Your task to perform on an android device: make emails show in primary in the gmail app Image 0: 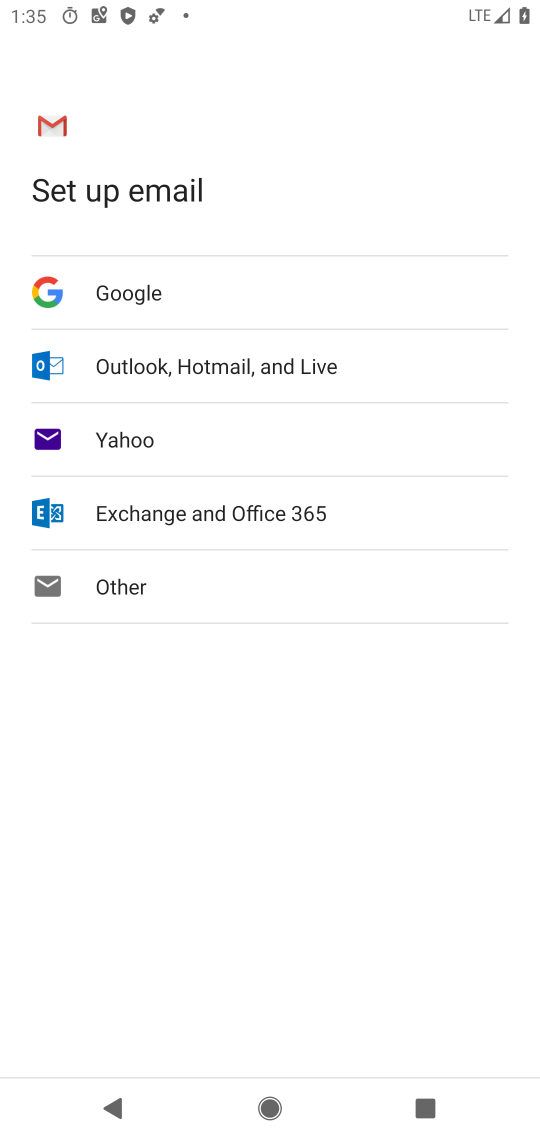
Step 0: press home button
Your task to perform on an android device: make emails show in primary in the gmail app Image 1: 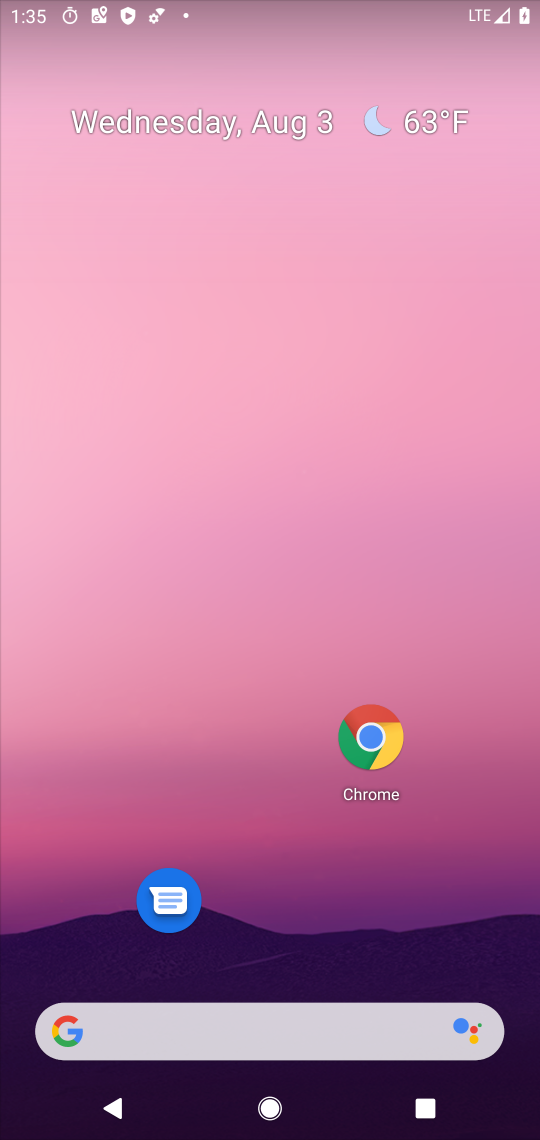
Step 1: drag from (336, 1004) to (290, 173)
Your task to perform on an android device: make emails show in primary in the gmail app Image 2: 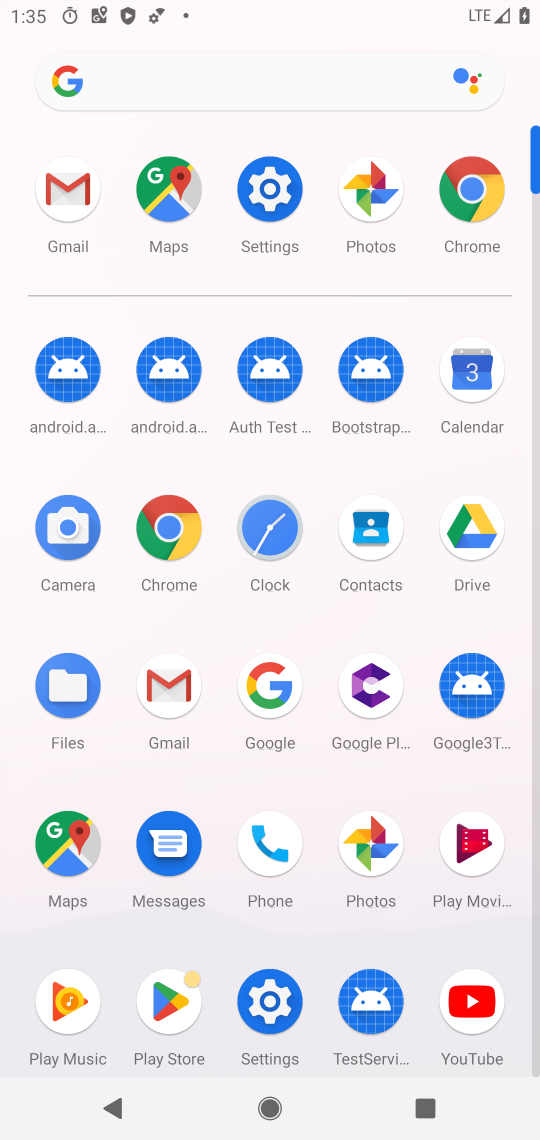
Step 2: click (67, 182)
Your task to perform on an android device: make emails show in primary in the gmail app Image 3: 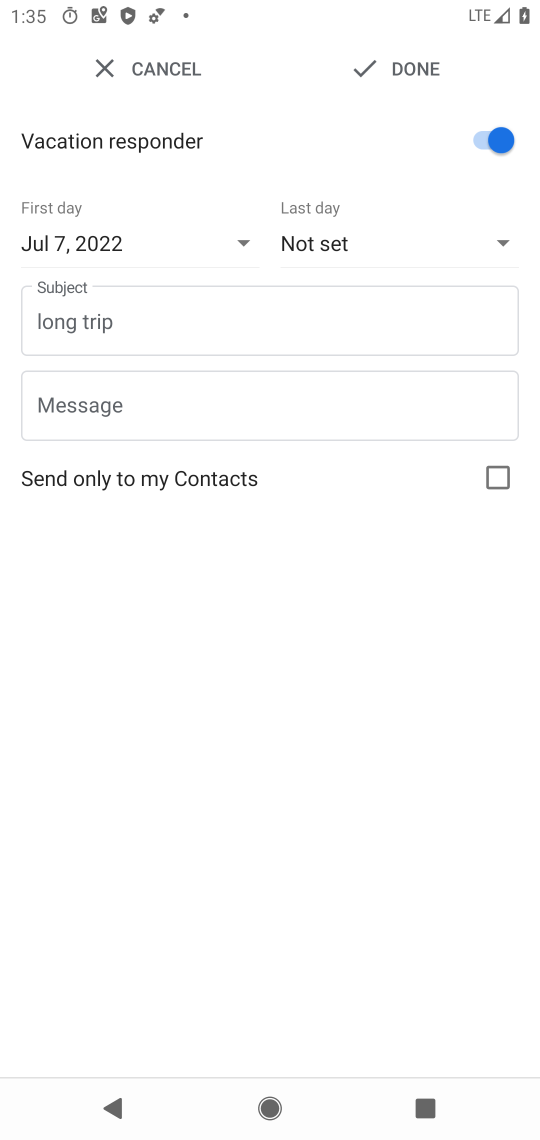
Step 3: click (116, 62)
Your task to perform on an android device: make emails show in primary in the gmail app Image 4: 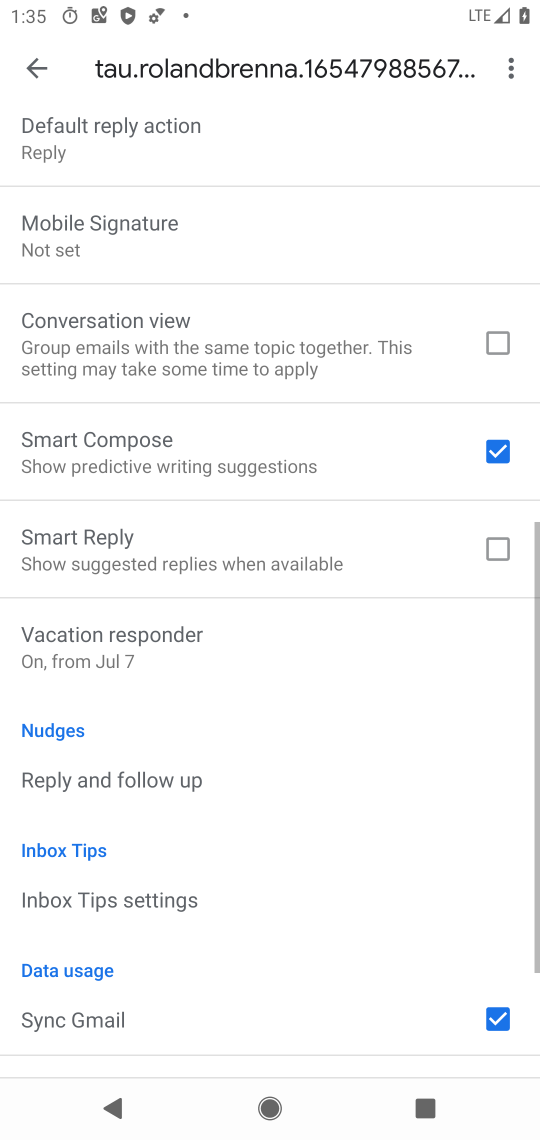
Step 4: click (15, 67)
Your task to perform on an android device: make emails show in primary in the gmail app Image 5: 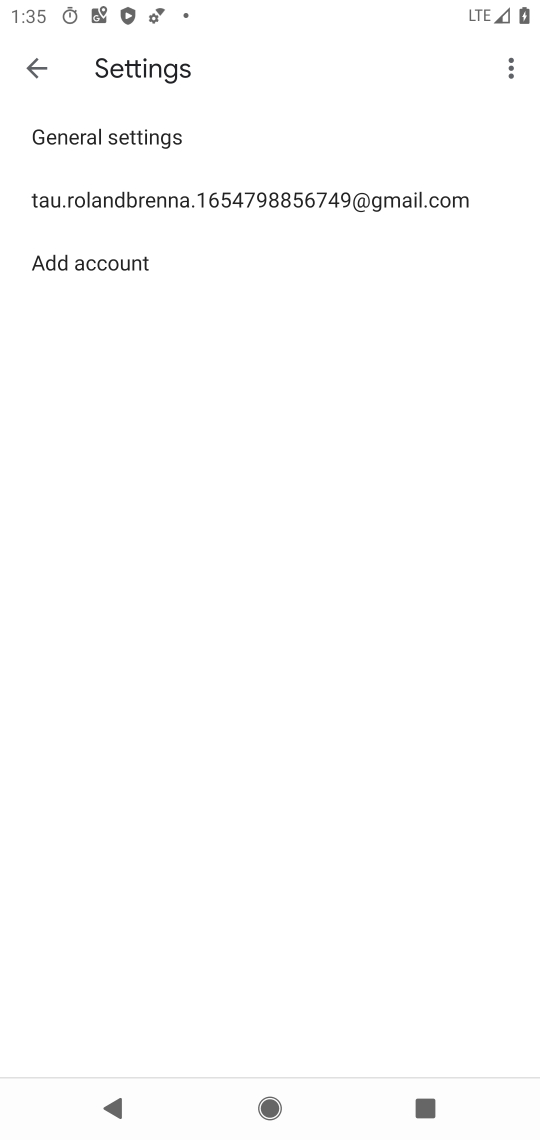
Step 5: click (27, 61)
Your task to perform on an android device: make emails show in primary in the gmail app Image 6: 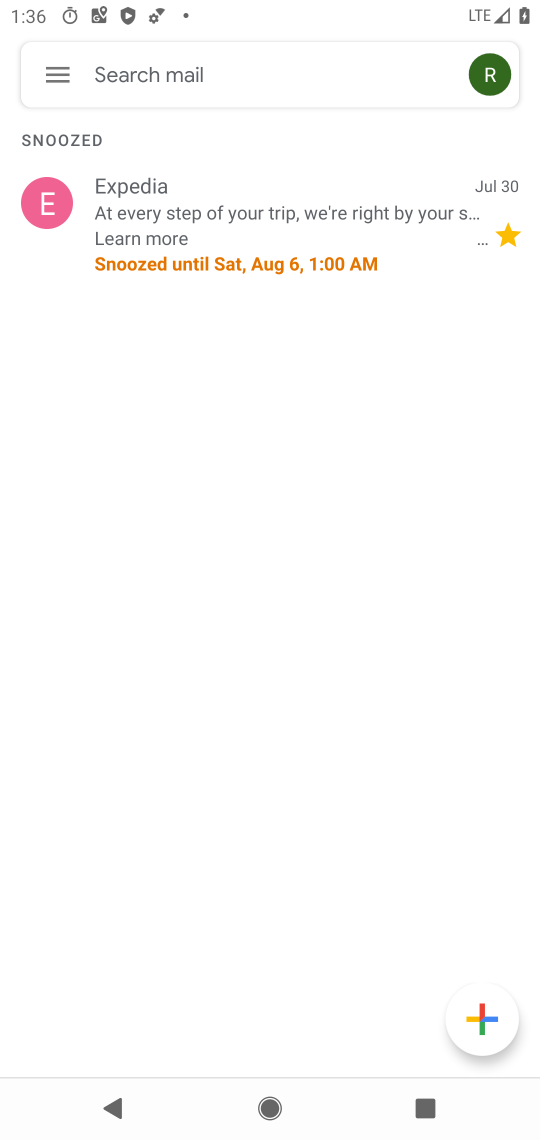
Step 6: click (46, 69)
Your task to perform on an android device: make emails show in primary in the gmail app Image 7: 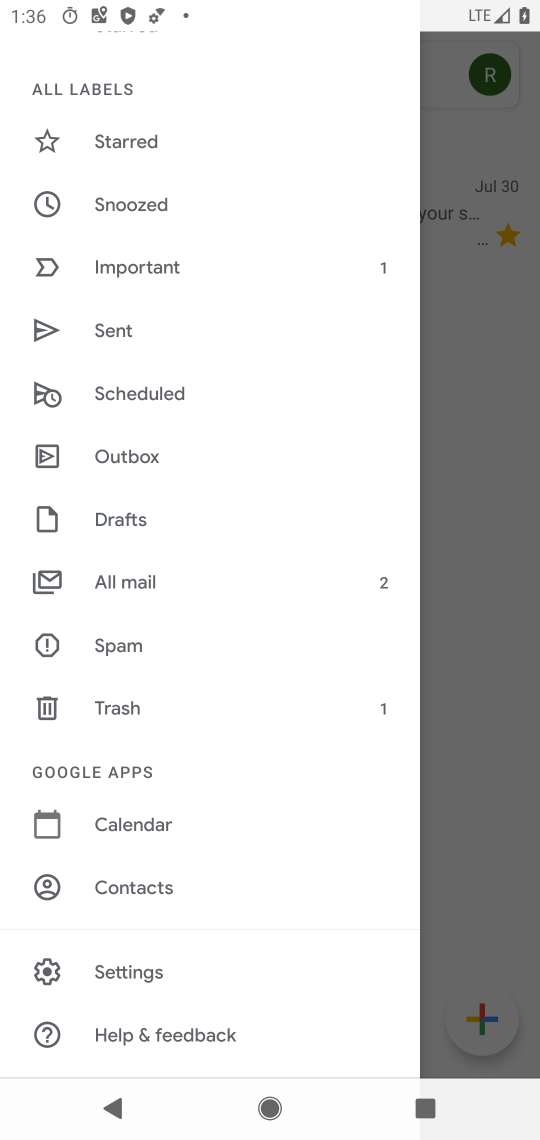
Step 7: click (101, 985)
Your task to perform on an android device: make emails show in primary in the gmail app Image 8: 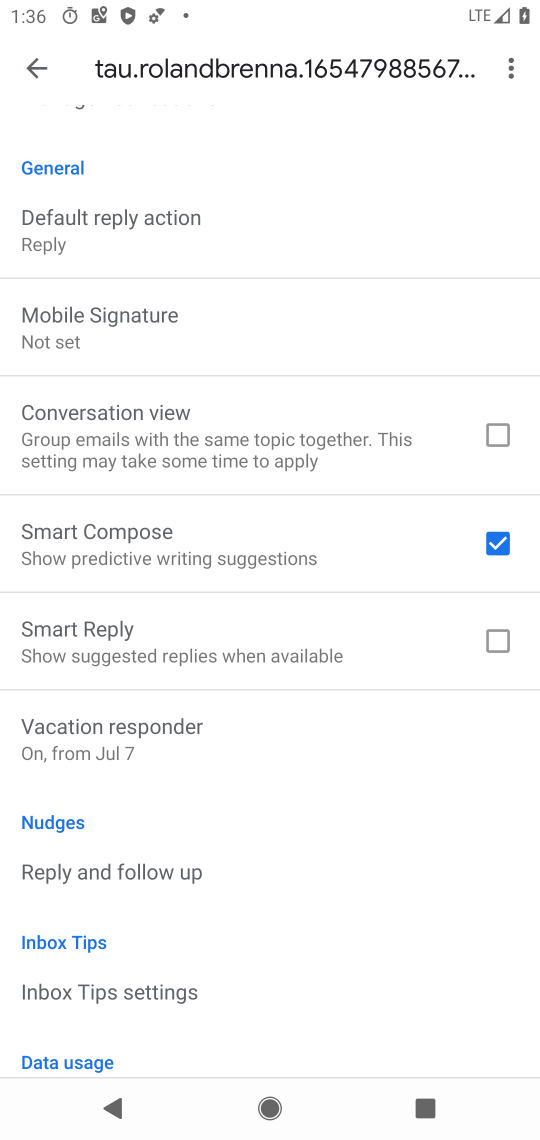
Step 8: drag from (183, 225) to (277, 1051)
Your task to perform on an android device: make emails show in primary in the gmail app Image 9: 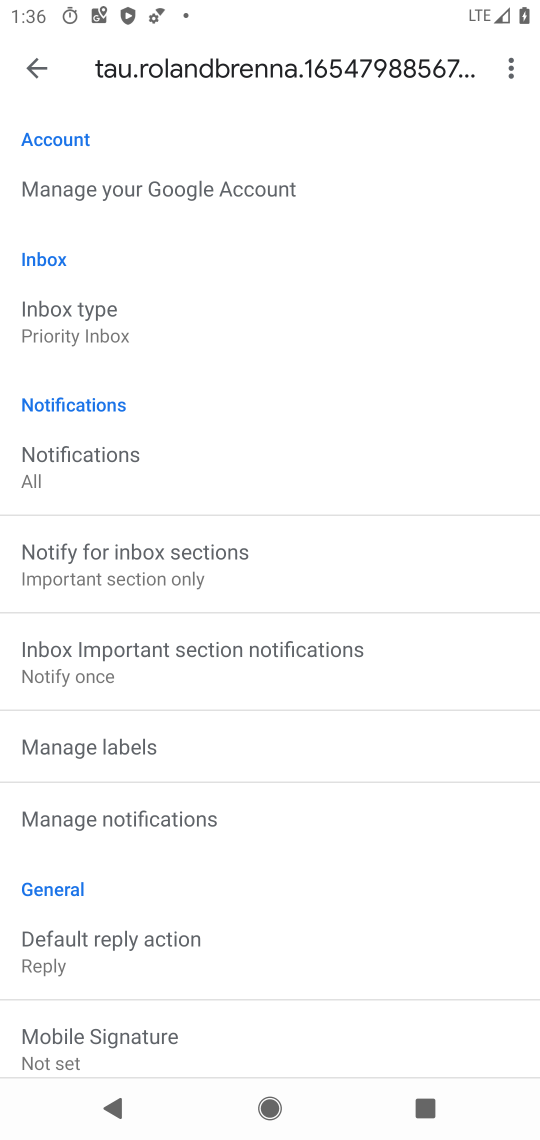
Step 9: click (78, 324)
Your task to perform on an android device: make emails show in primary in the gmail app Image 10: 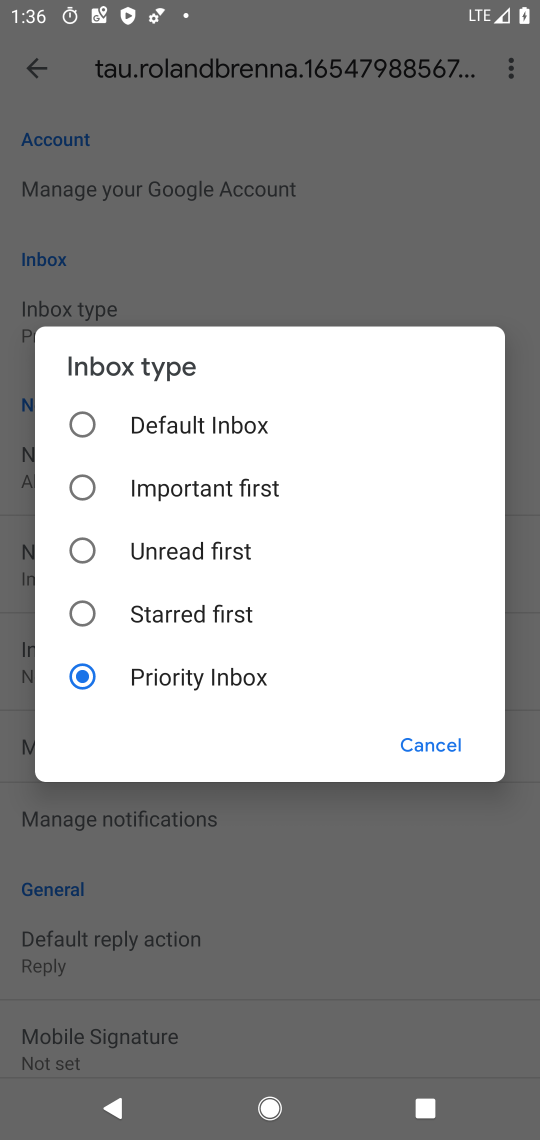
Step 10: click (191, 423)
Your task to perform on an android device: make emails show in primary in the gmail app Image 11: 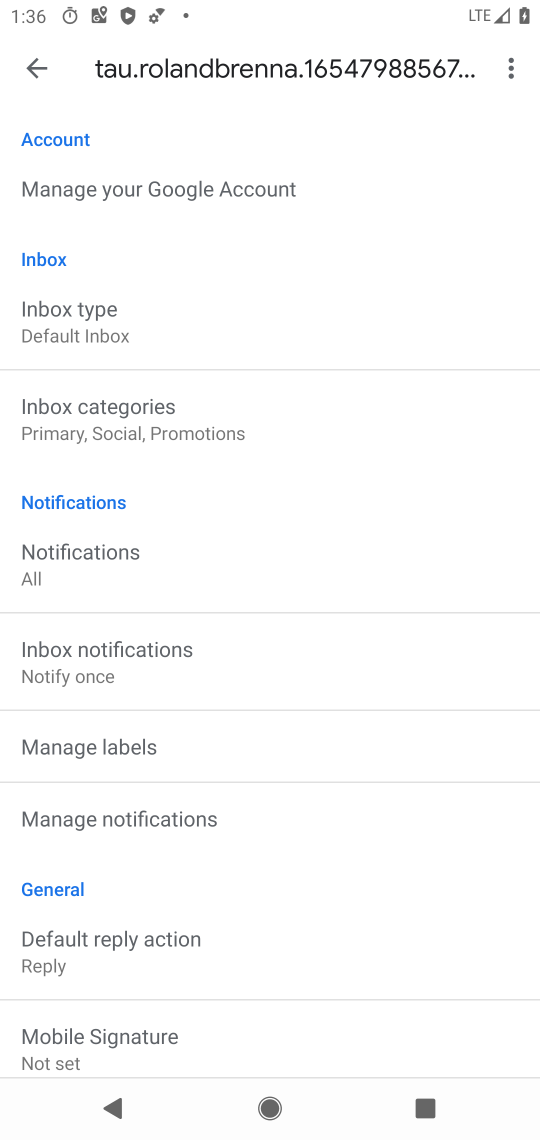
Step 11: click (149, 451)
Your task to perform on an android device: make emails show in primary in the gmail app Image 12: 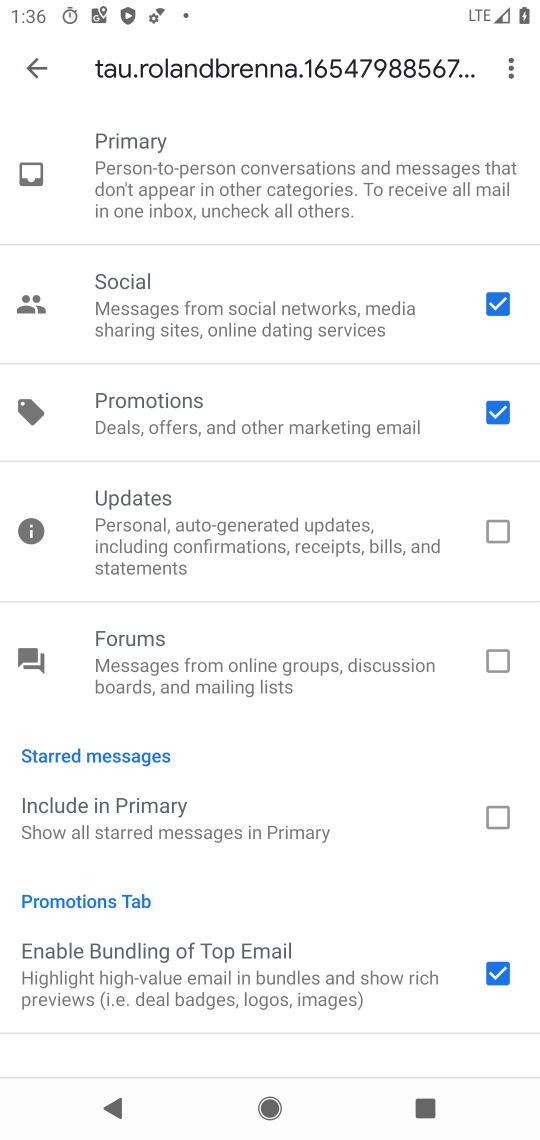
Step 12: task complete